Your task to perform on an android device: Open calendar and show me the third week of next month Image 0: 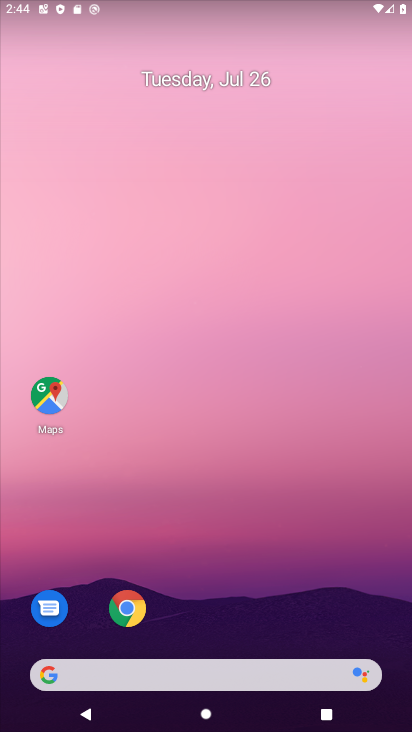
Step 0: drag from (266, 648) to (269, 263)
Your task to perform on an android device: Open calendar and show me the third week of next month Image 1: 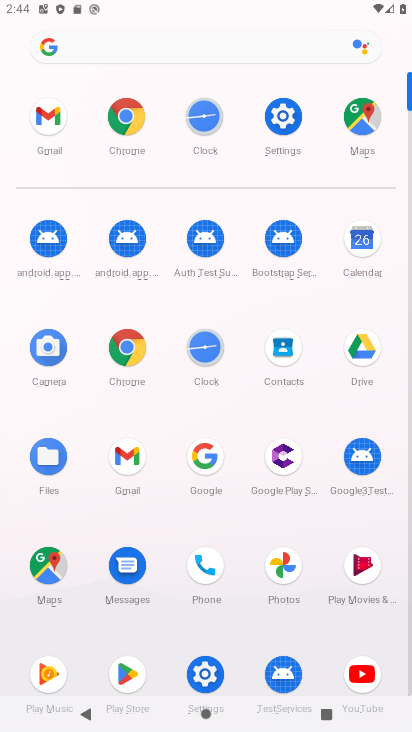
Step 1: click (371, 254)
Your task to perform on an android device: Open calendar and show me the third week of next month Image 2: 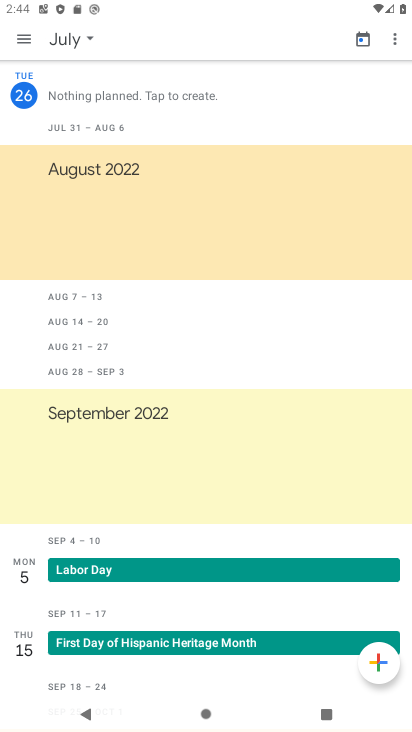
Step 2: task complete